Your task to perform on an android device: change the clock style Image 0: 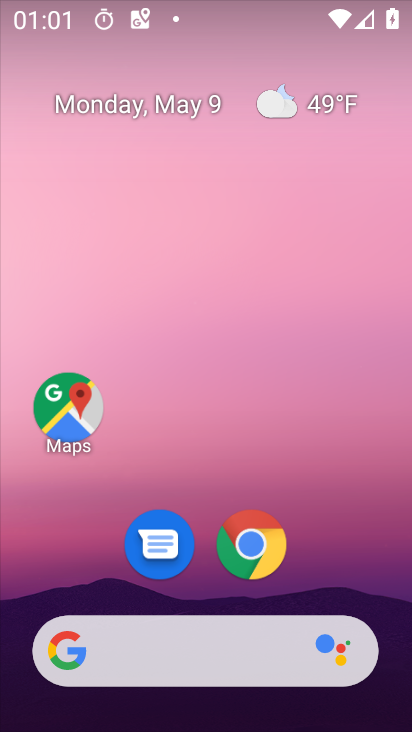
Step 0: drag from (280, 559) to (216, 77)
Your task to perform on an android device: change the clock style Image 1: 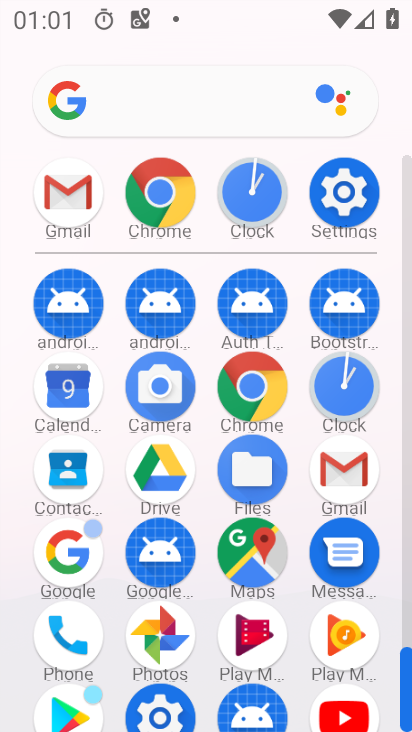
Step 1: click (342, 391)
Your task to perform on an android device: change the clock style Image 2: 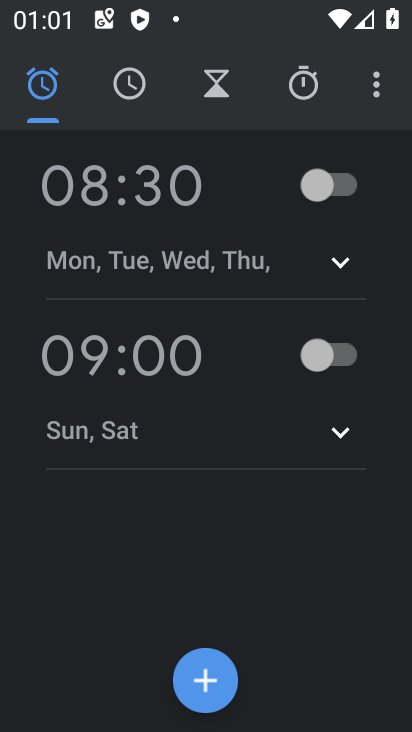
Step 2: click (367, 92)
Your task to perform on an android device: change the clock style Image 3: 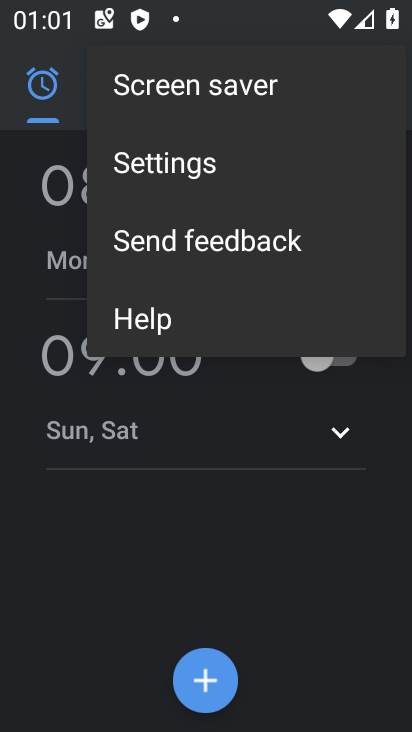
Step 3: click (247, 158)
Your task to perform on an android device: change the clock style Image 4: 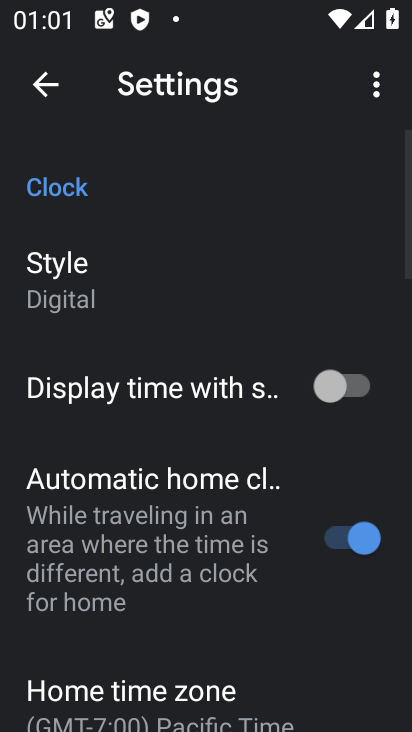
Step 4: drag from (196, 694) to (222, 131)
Your task to perform on an android device: change the clock style Image 5: 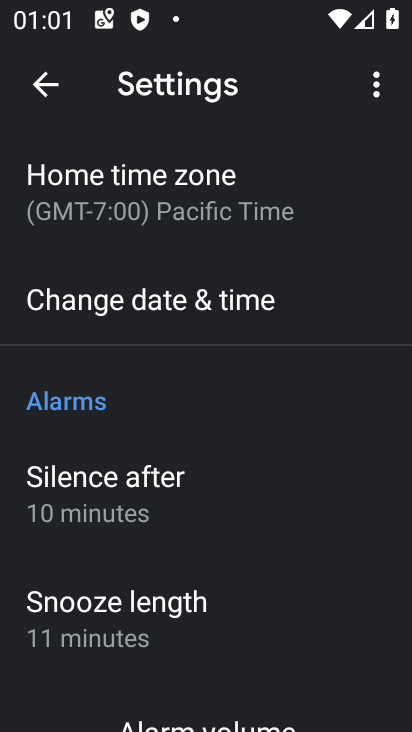
Step 5: drag from (172, 659) to (186, 73)
Your task to perform on an android device: change the clock style Image 6: 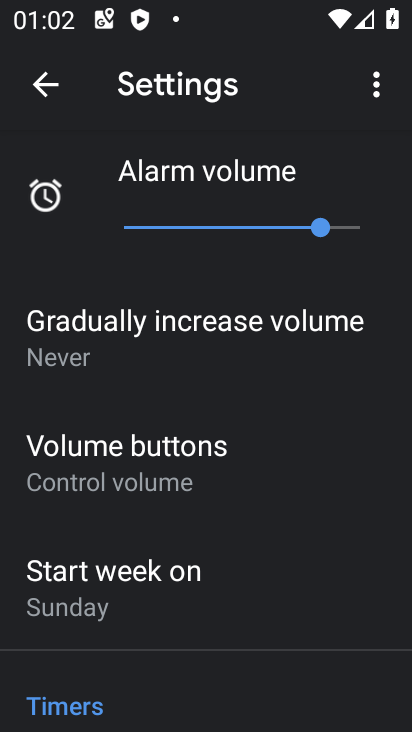
Step 6: drag from (282, 697) to (256, 148)
Your task to perform on an android device: change the clock style Image 7: 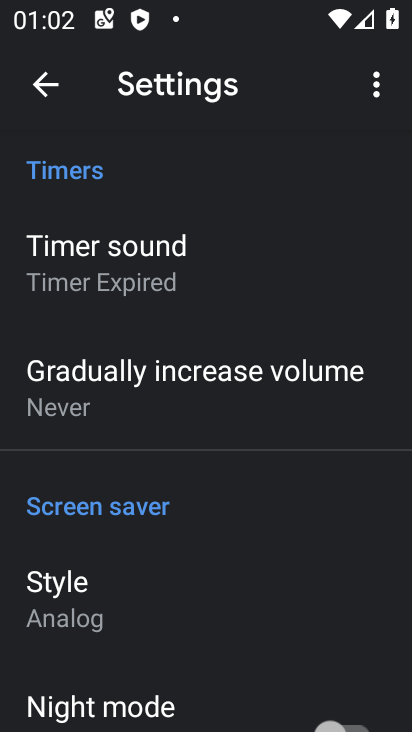
Step 7: click (174, 616)
Your task to perform on an android device: change the clock style Image 8: 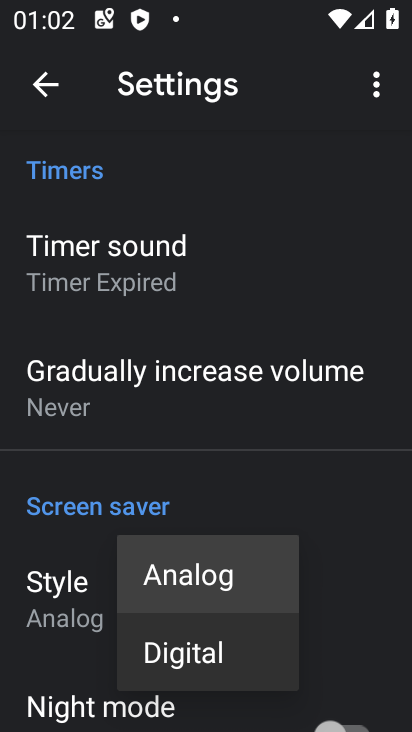
Step 8: click (171, 664)
Your task to perform on an android device: change the clock style Image 9: 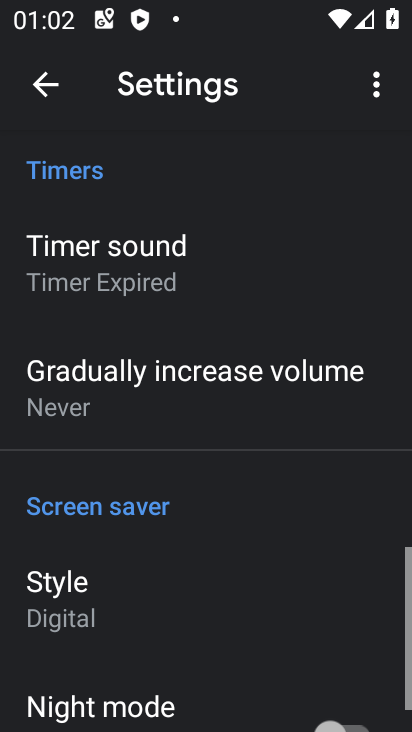
Step 9: task complete